Your task to perform on an android device: Do I have any events tomorrow? Image 0: 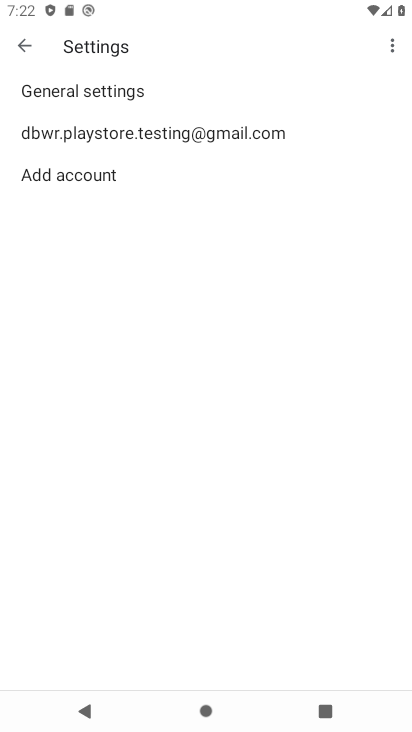
Step 0: press home button
Your task to perform on an android device: Do I have any events tomorrow? Image 1: 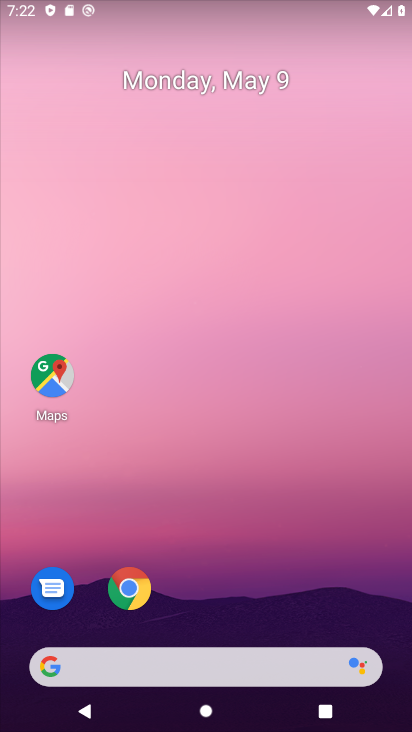
Step 1: drag from (156, 659) to (335, 72)
Your task to perform on an android device: Do I have any events tomorrow? Image 2: 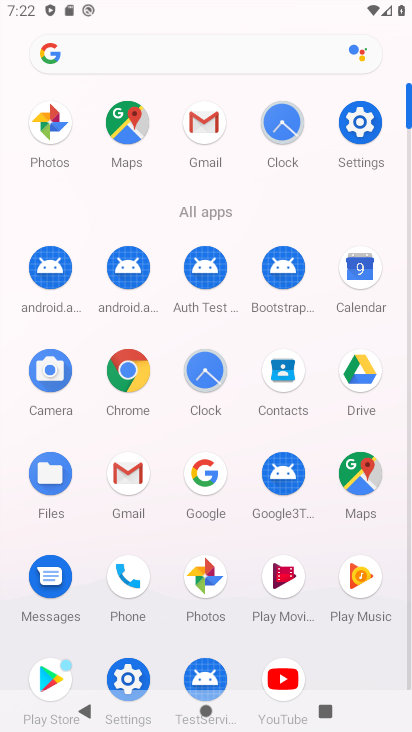
Step 2: click (358, 265)
Your task to perform on an android device: Do I have any events tomorrow? Image 3: 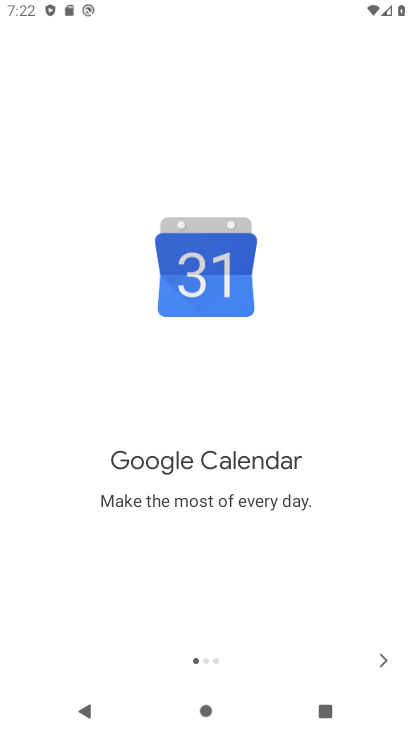
Step 3: click (387, 650)
Your task to perform on an android device: Do I have any events tomorrow? Image 4: 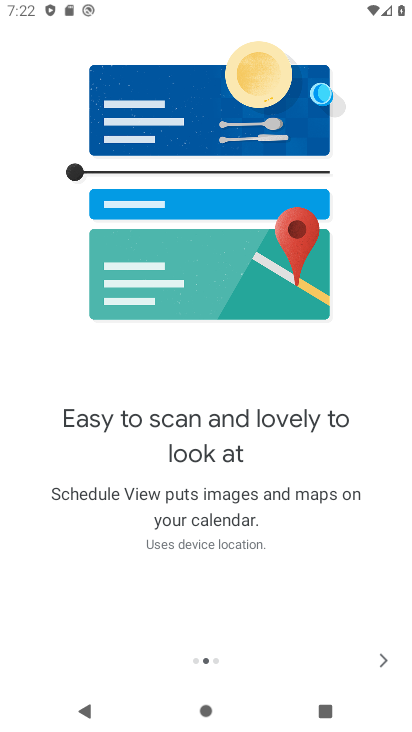
Step 4: click (387, 650)
Your task to perform on an android device: Do I have any events tomorrow? Image 5: 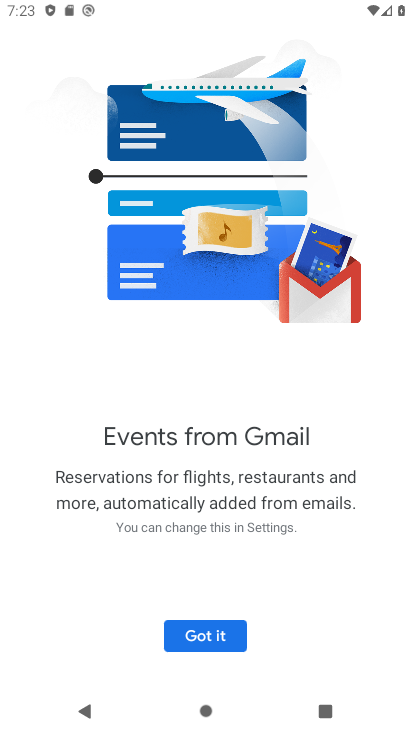
Step 5: click (182, 634)
Your task to perform on an android device: Do I have any events tomorrow? Image 6: 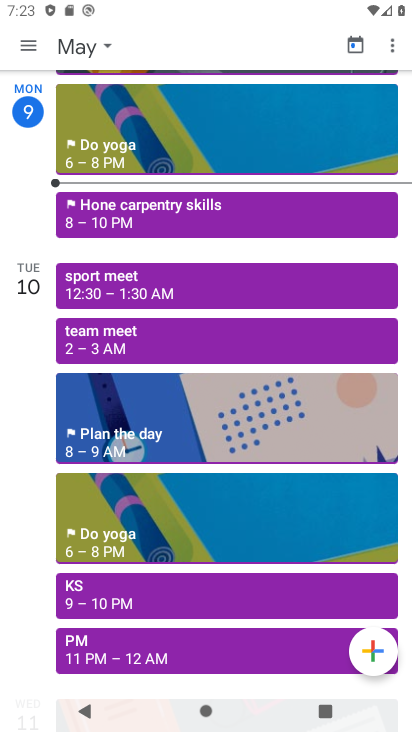
Step 6: click (81, 40)
Your task to perform on an android device: Do I have any events tomorrow? Image 7: 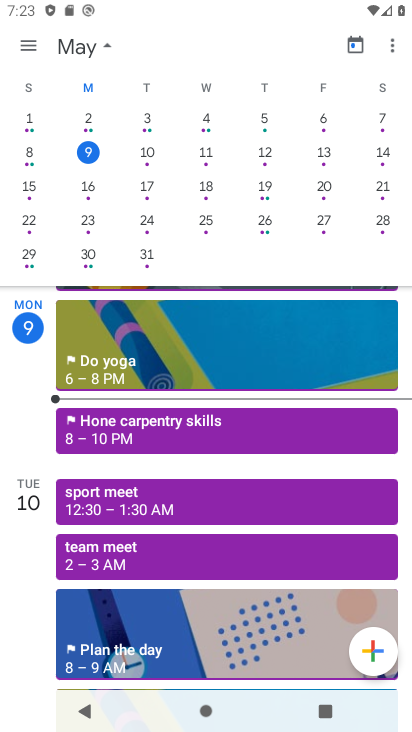
Step 7: click (149, 154)
Your task to perform on an android device: Do I have any events tomorrow? Image 8: 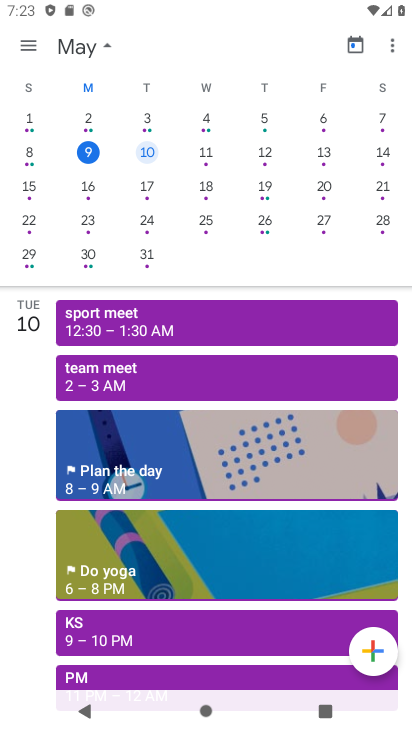
Step 8: click (26, 38)
Your task to perform on an android device: Do I have any events tomorrow? Image 9: 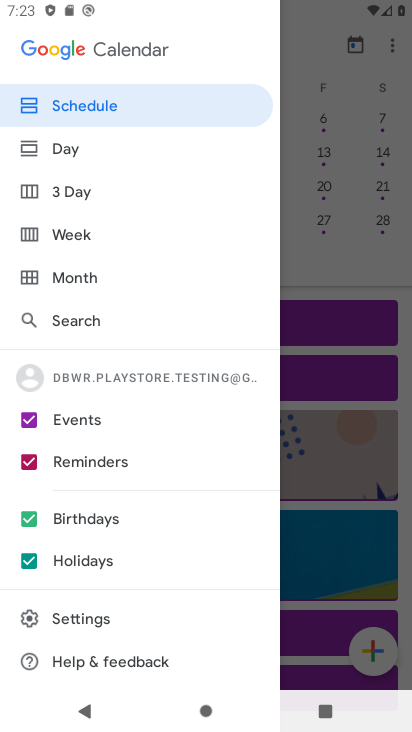
Step 9: click (81, 146)
Your task to perform on an android device: Do I have any events tomorrow? Image 10: 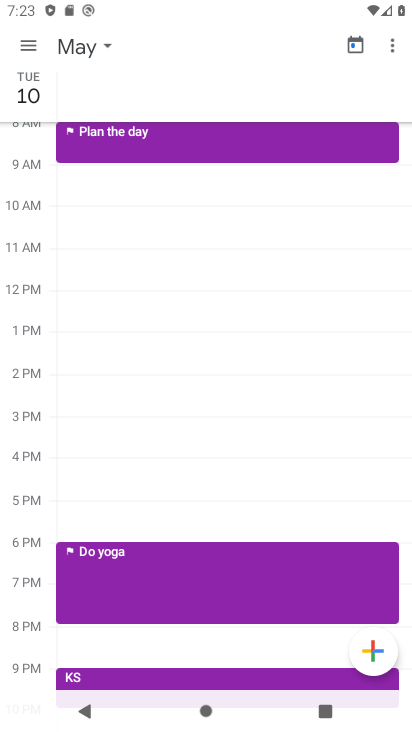
Step 10: click (33, 48)
Your task to perform on an android device: Do I have any events tomorrow? Image 11: 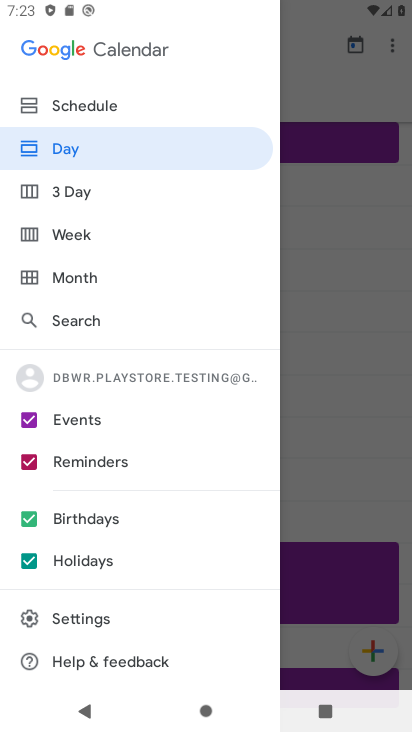
Step 11: click (80, 105)
Your task to perform on an android device: Do I have any events tomorrow? Image 12: 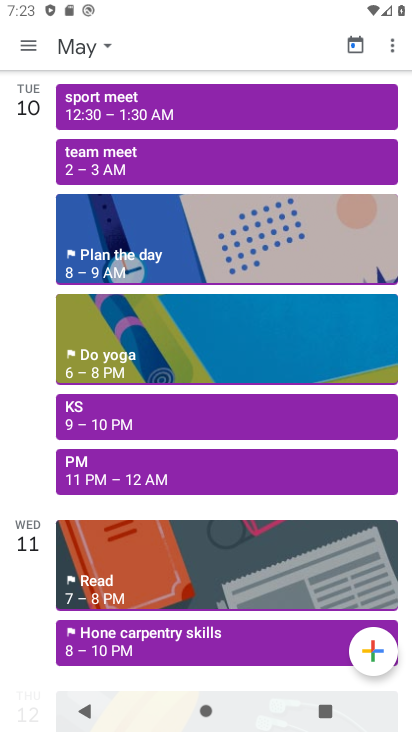
Step 12: click (129, 113)
Your task to perform on an android device: Do I have any events tomorrow? Image 13: 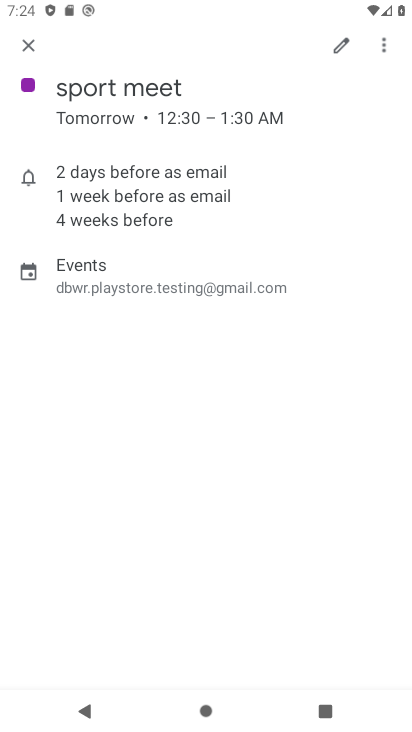
Step 13: task complete